Your task to perform on an android device: Open Maps and search for coffee Image 0: 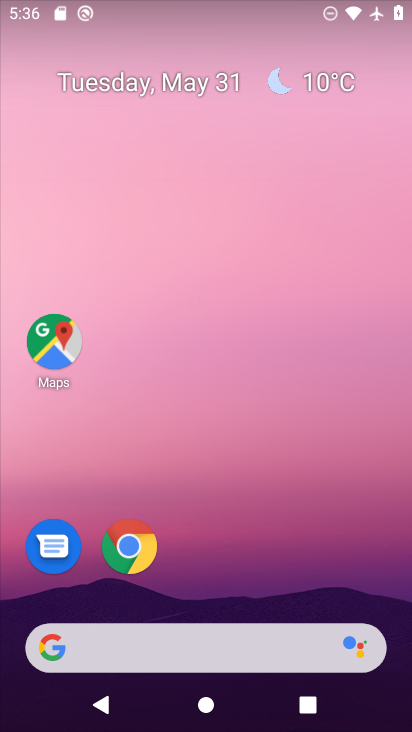
Step 0: click (52, 338)
Your task to perform on an android device: Open Maps and search for coffee Image 1: 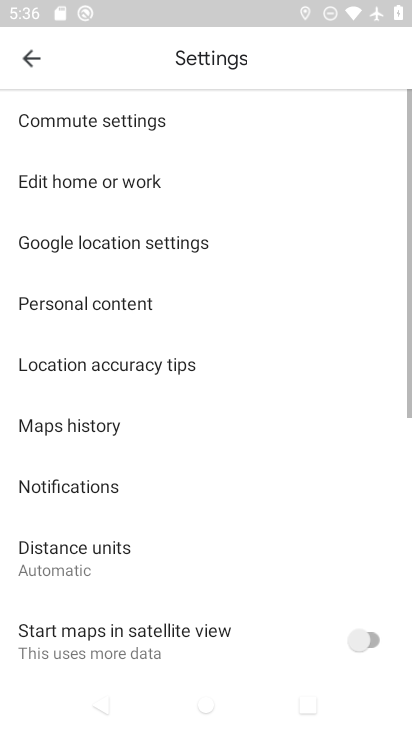
Step 1: click (37, 62)
Your task to perform on an android device: Open Maps and search for coffee Image 2: 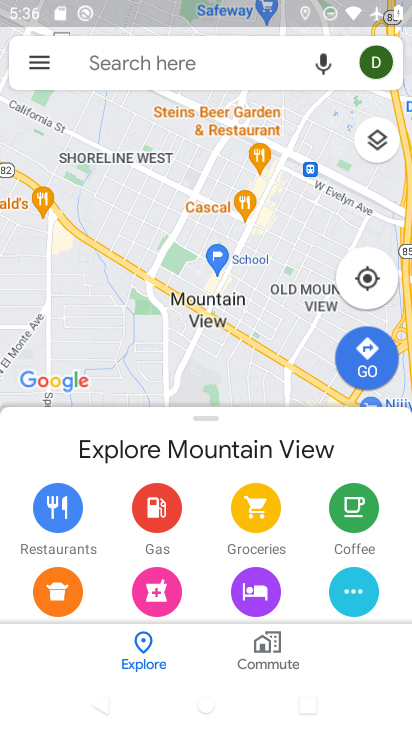
Step 2: click (147, 65)
Your task to perform on an android device: Open Maps and search for coffee Image 3: 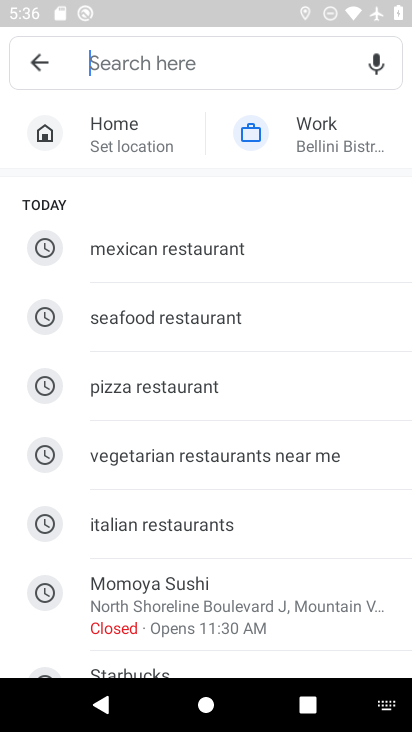
Step 3: type "coffee"
Your task to perform on an android device: Open Maps and search for coffee Image 4: 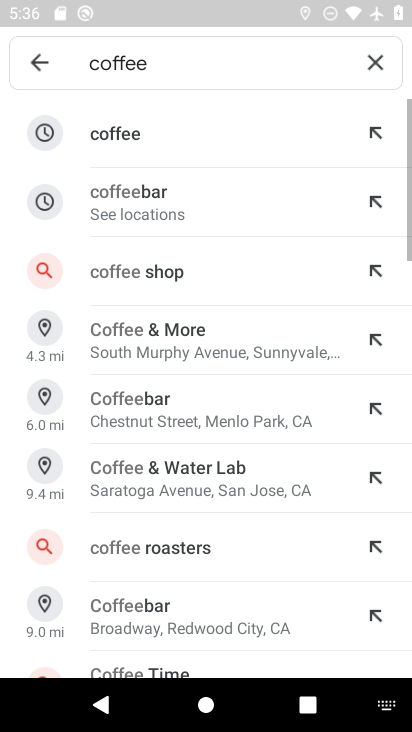
Step 4: click (174, 131)
Your task to perform on an android device: Open Maps and search for coffee Image 5: 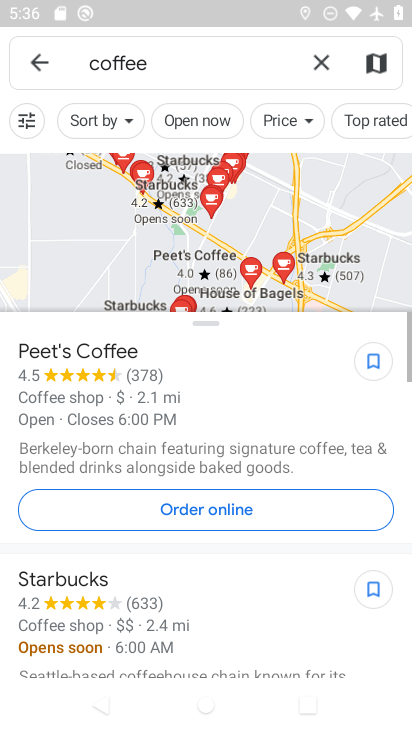
Step 5: task complete